Your task to perform on an android device: empty trash in the gmail app Image 0: 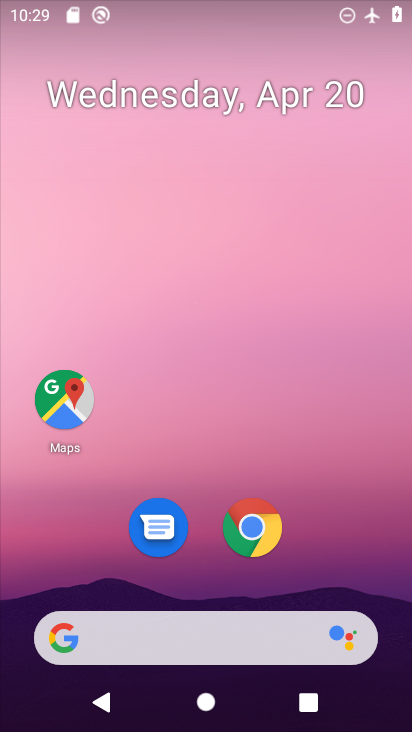
Step 0: drag from (191, 529) to (233, 2)
Your task to perform on an android device: empty trash in the gmail app Image 1: 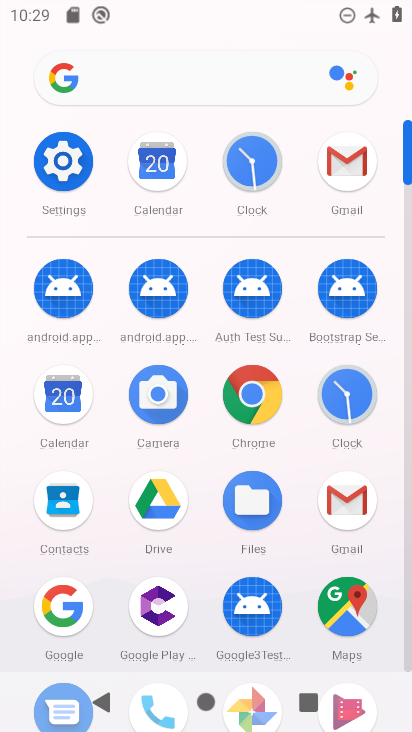
Step 1: click (345, 513)
Your task to perform on an android device: empty trash in the gmail app Image 2: 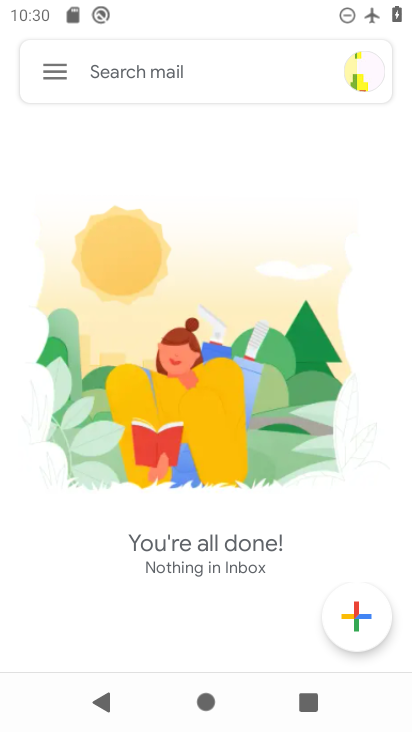
Step 2: click (57, 79)
Your task to perform on an android device: empty trash in the gmail app Image 3: 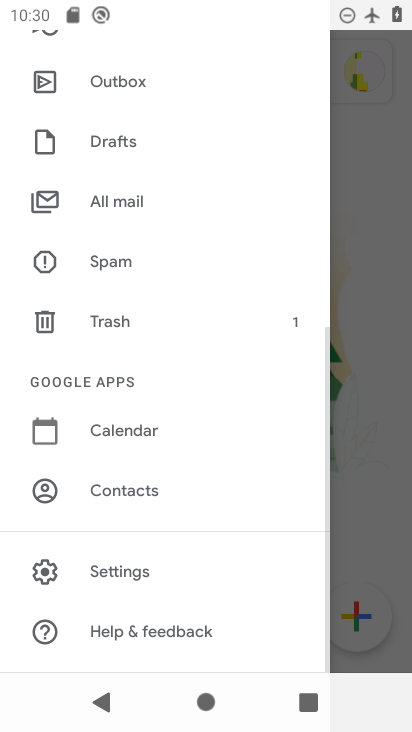
Step 3: click (113, 313)
Your task to perform on an android device: empty trash in the gmail app Image 4: 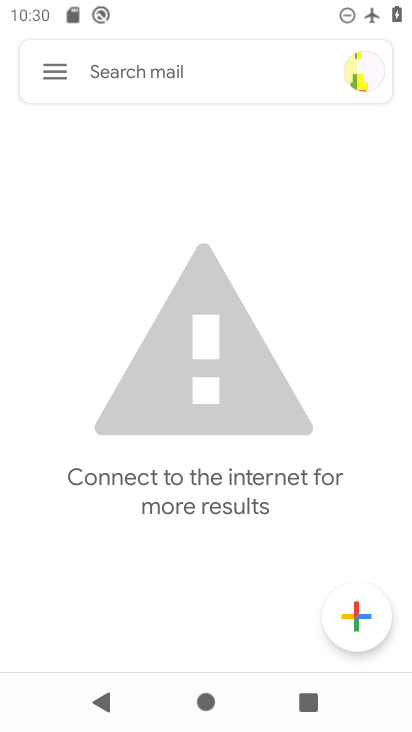
Step 4: task complete